Your task to perform on an android device: toggle notifications settings in the gmail app Image 0: 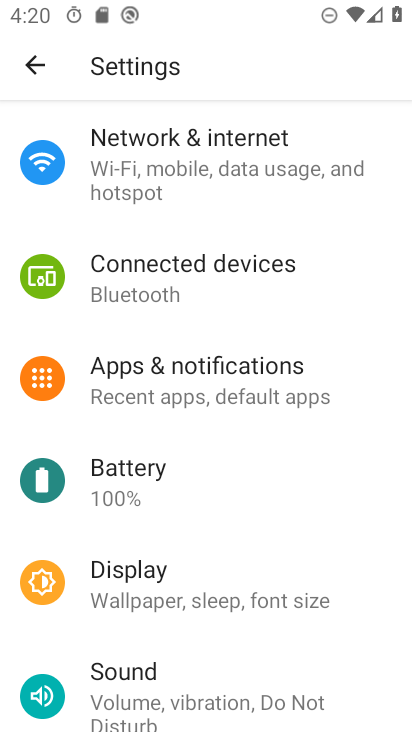
Step 0: click (229, 381)
Your task to perform on an android device: toggle notifications settings in the gmail app Image 1: 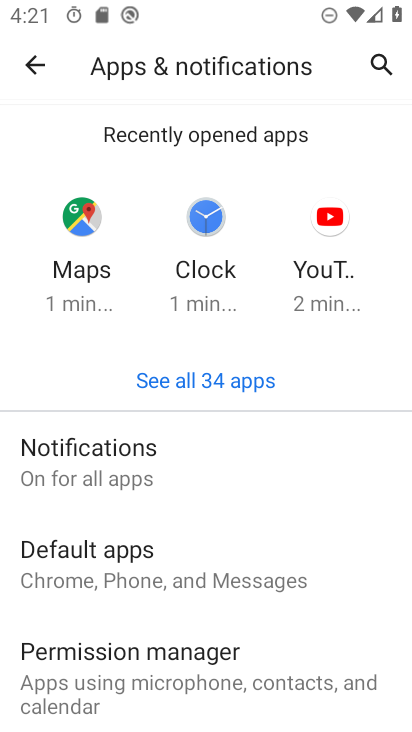
Step 1: click (196, 465)
Your task to perform on an android device: toggle notifications settings in the gmail app Image 2: 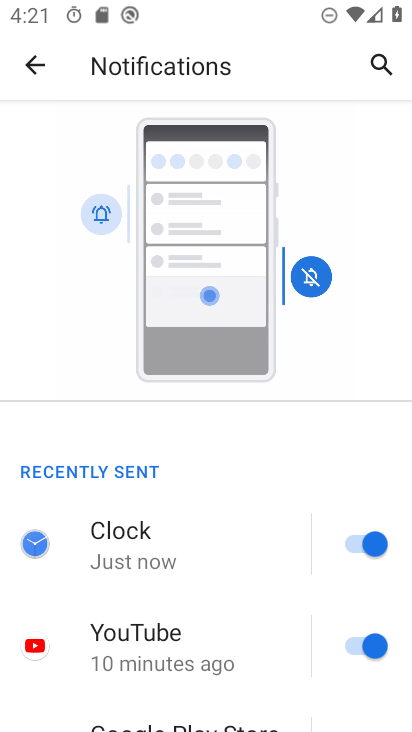
Step 2: drag from (234, 579) to (278, 88)
Your task to perform on an android device: toggle notifications settings in the gmail app Image 3: 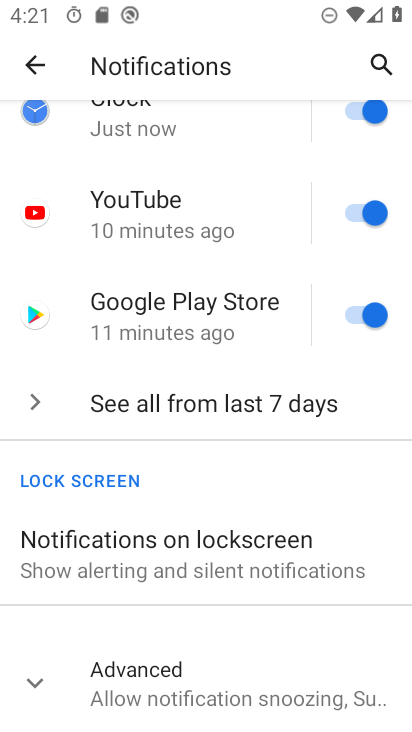
Step 3: drag from (241, 523) to (229, 125)
Your task to perform on an android device: toggle notifications settings in the gmail app Image 4: 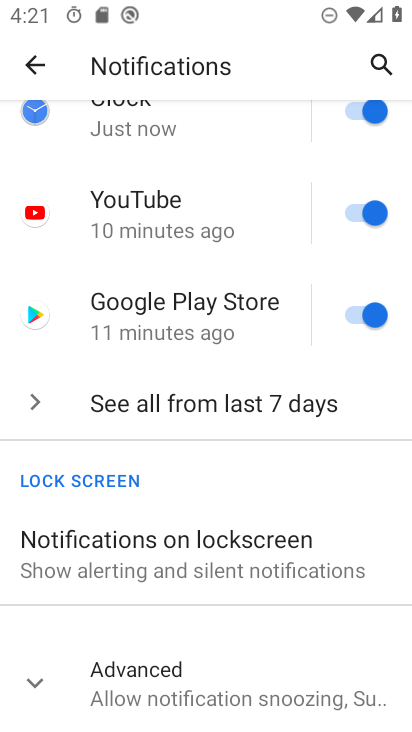
Step 4: click (178, 556)
Your task to perform on an android device: toggle notifications settings in the gmail app Image 5: 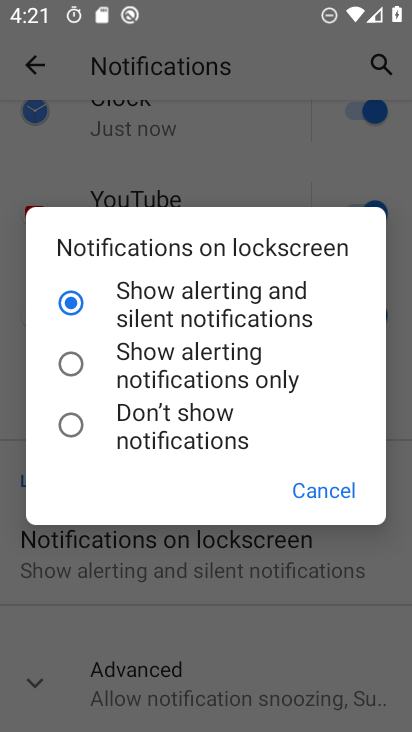
Step 5: click (141, 349)
Your task to perform on an android device: toggle notifications settings in the gmail app Image 6: 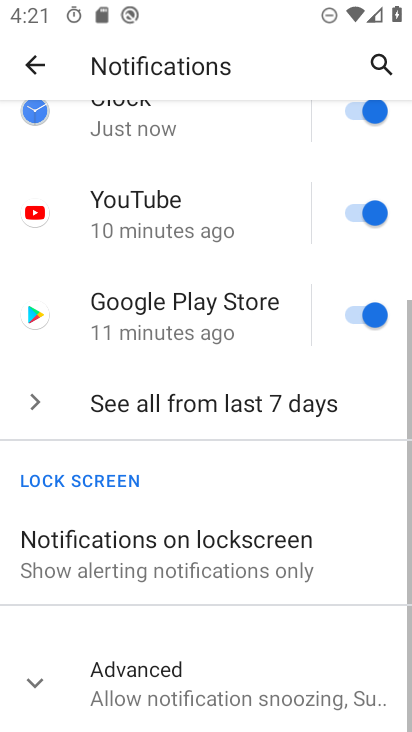
Step 6: task complete